Your task to perform on an android device: Turn on the flashlight Image 0: 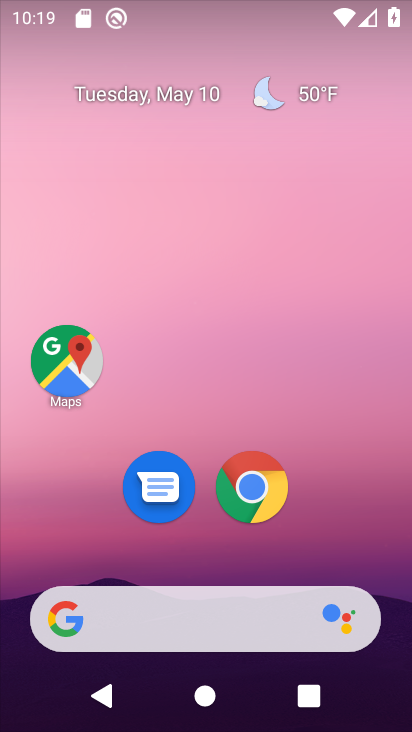
Step 0: drag from (352, 521) to (352, 480)
Your task to perform on an android device: Turn on the flashlight Image 1: 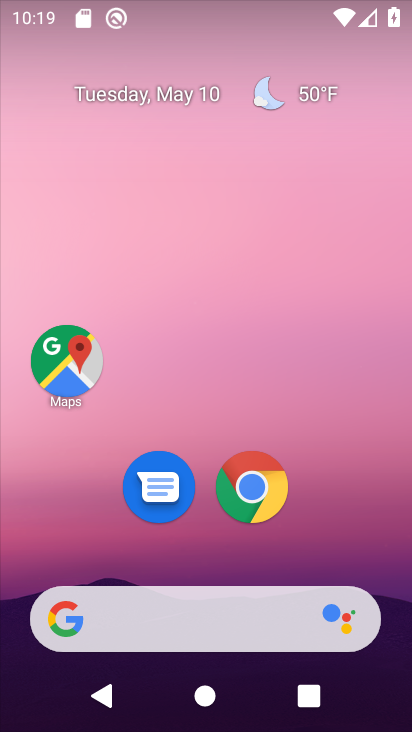
Step 1: task complete